Your task to perform on an android device: set an alarm Image 0: 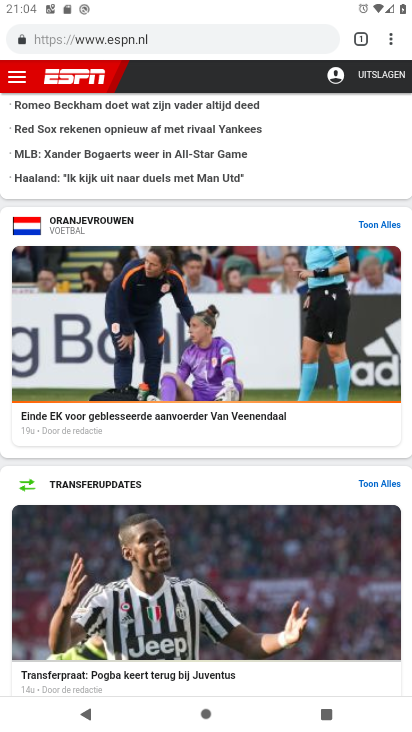
Step 0: press home button
Your task to perform on an android device: set an alarm Image 1: 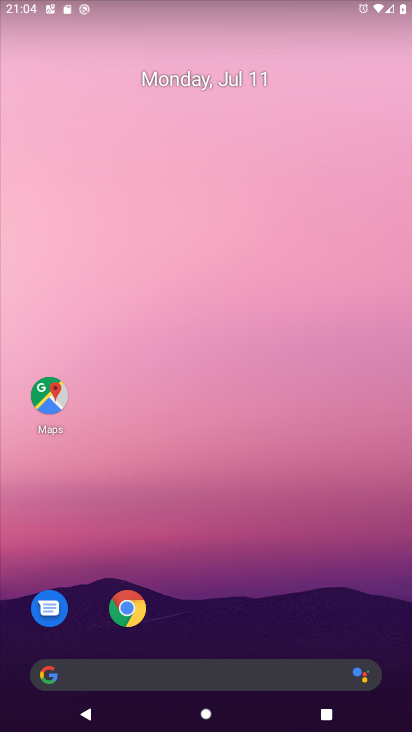
Step 1: drag from (286, 604) to (276, 64)
Your task to perform on an android device: set an alarm Image 2: 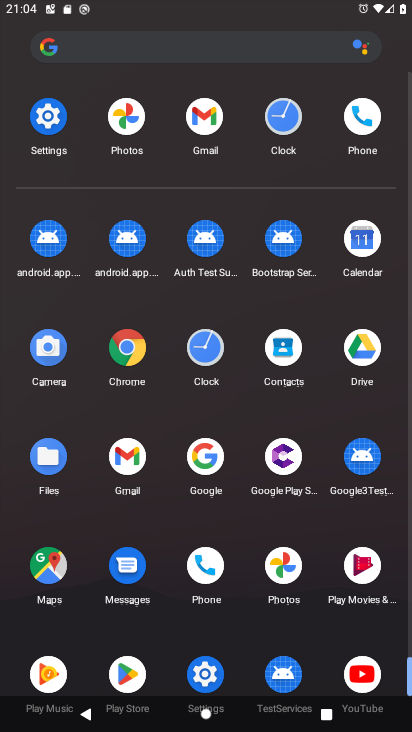
Step 2: click (42, 115)
Your task to perform on an android device: set an alarm Image 3: 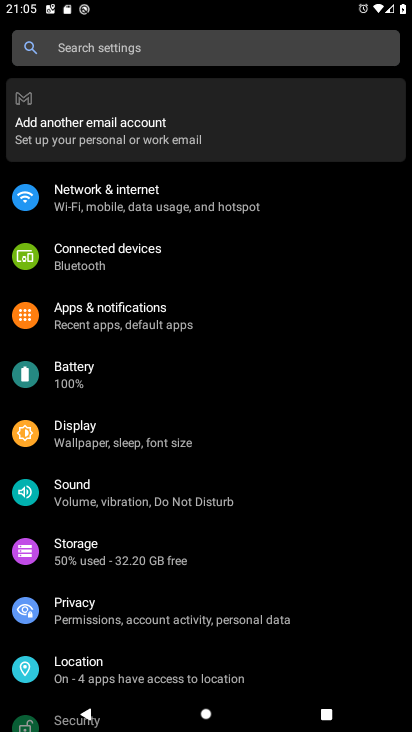
Step 3: press home button
Your task to perform on an android device: set an alarm Image 4: 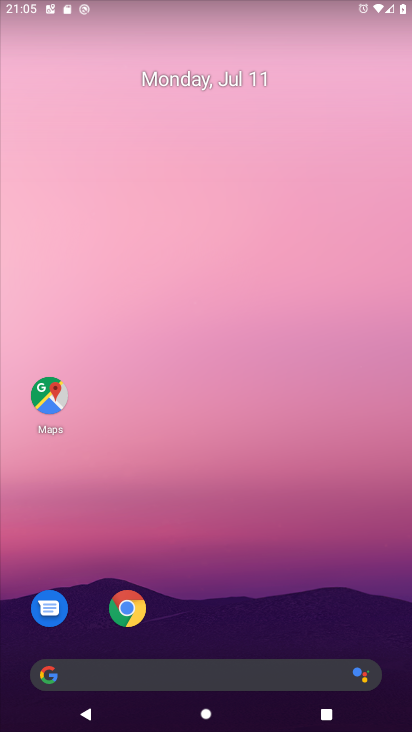
Step 4: drag from (260, 599) to (285, 243)
Your task to perform on an android device: set an alarm Image 5: 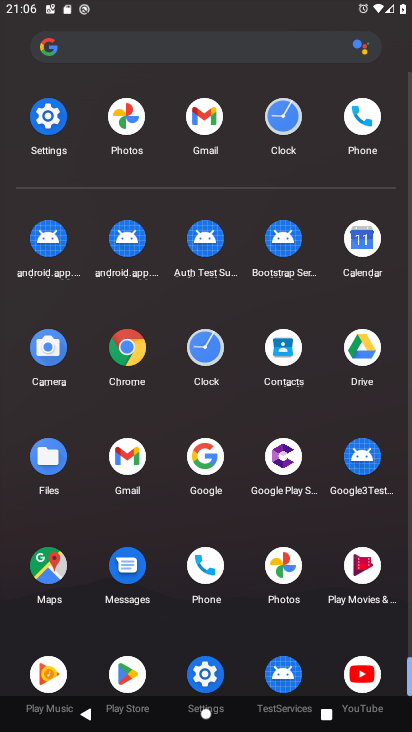
Step 5: click (292, 150)
Your task to perform on an android device: set an alarm Image 6: 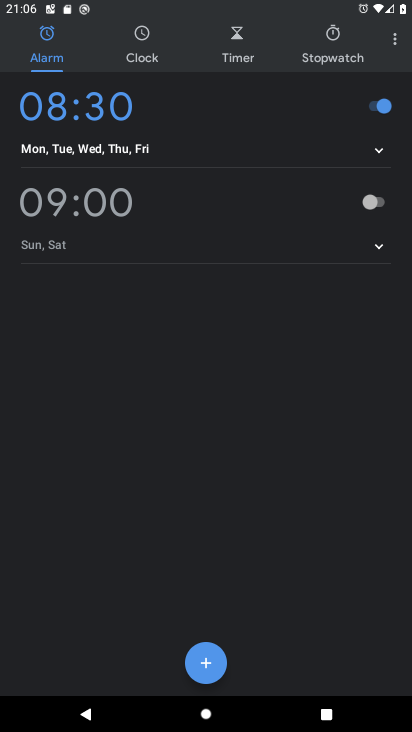
Step 6: click (371, 183)
Your task to perform on an android device: set an alarm Image 7: 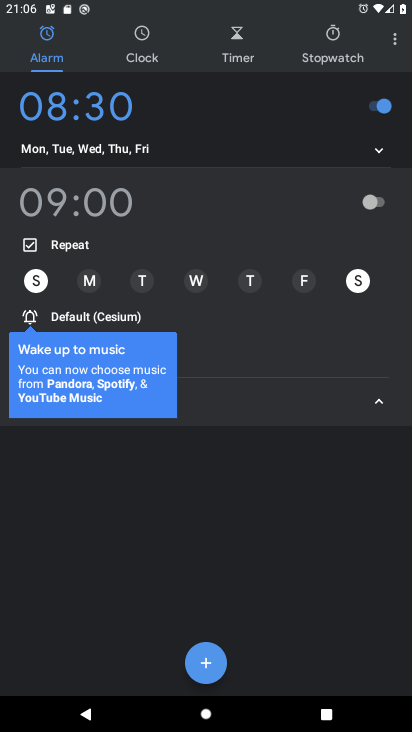
Step 7: task complete